Your task to perform on an android device: toggle pop-ups in chrome Image 0: 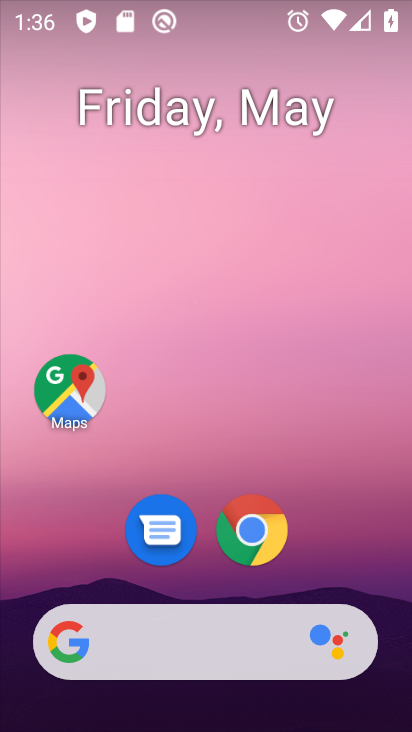
Step 0: click (245, 530)
Your task to perform on an android device: toggle pop-ups in chrome Image 1: 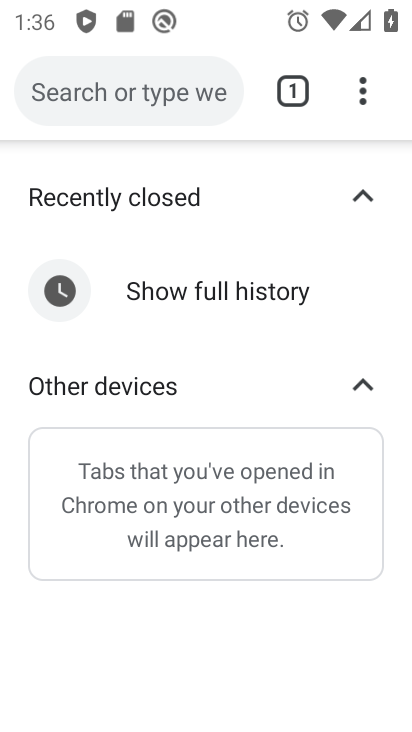
Step 1: click (345, 99)
Your task to perform on an android device: toggle pop-ups in chrome Image 2: 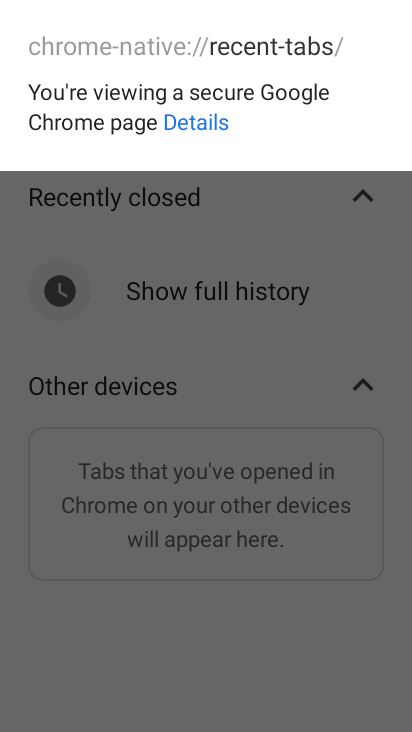
Step 2: click (343, 345)
Your task to perform on an android device: toggle pop-ups in chrome Image 3: 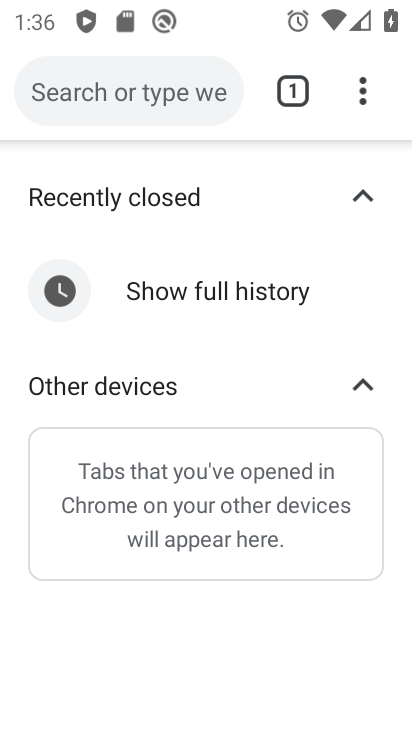
Step 3: click (382, 103)
Your task to perform on an android device: toggle pop-ups in chrome Image 4: 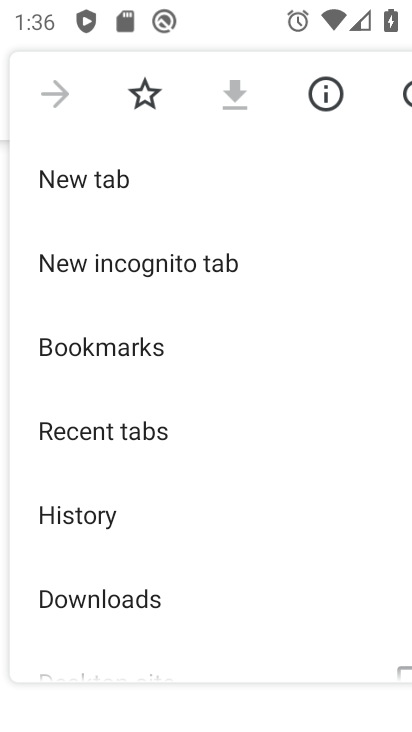
Step 4: drag from (190, 607) to (189, 112)
Your task to perform on an android device: toggle pop-ups in chrome Image 5: 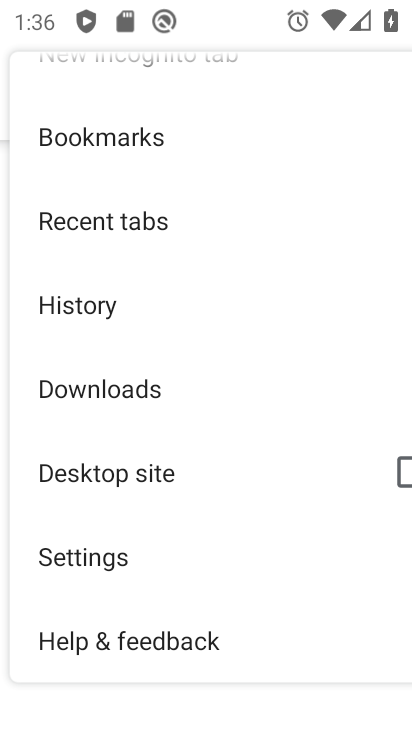
Step 5: click (125, 568)
Your task to perform on an android device: toggle pop-ups in chrome Image 6: 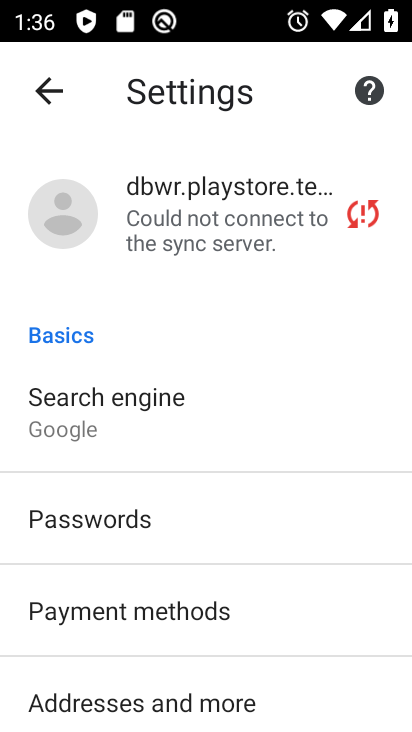
Step 6: drag from (287, 669) to (253, 295)
Your task to perform on an android device: toggle pop-ups in chrome Image 7: 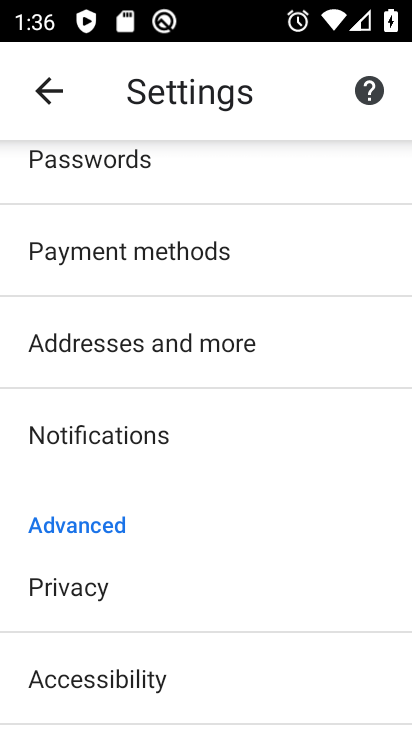
Step 7: drag from (185, 681) to (192, 302)
Your task to perform on an android device: toggle pop-ups in chrome Image 8: 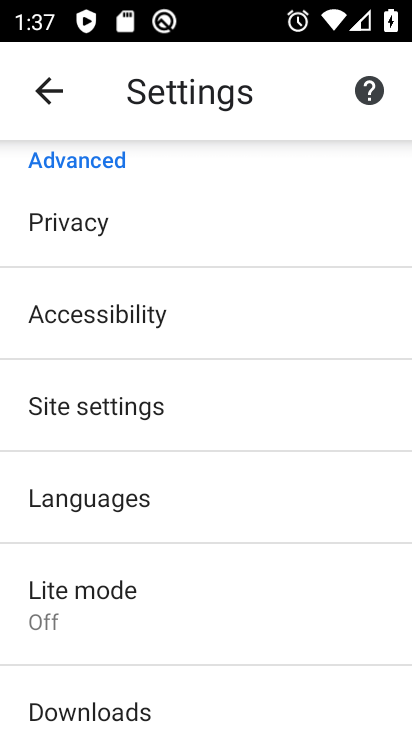
Step 8: click (170, 413)
Your task to perform on an android device: toggle pop-ups in chrome Image 9: 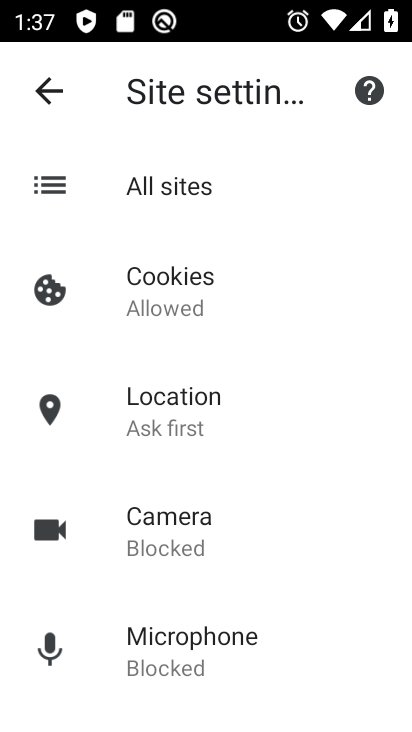
Step 9: drag from (189, 664) to (214, 241)
Your task to perform on an android device: toggle pop-ups in chrome Image 10: 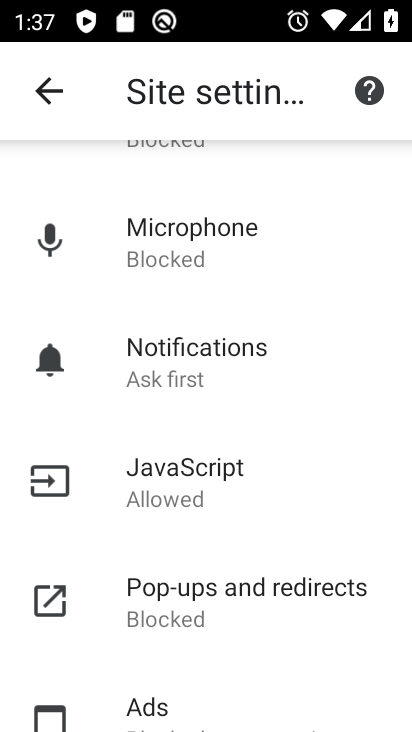
Step 10: click (191, 591)
Your task to perform on an android device: toggle pop-ups in chrome Image 11: 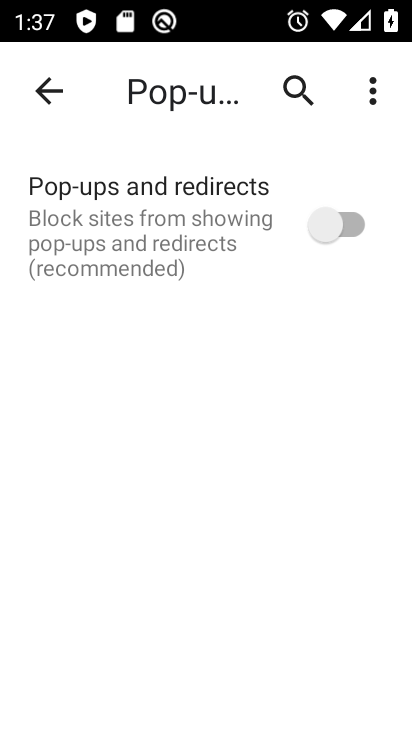
Step 11: click (366, 216)
Your task to perform on an android device: toggle pop-ups in chrome Image 12: 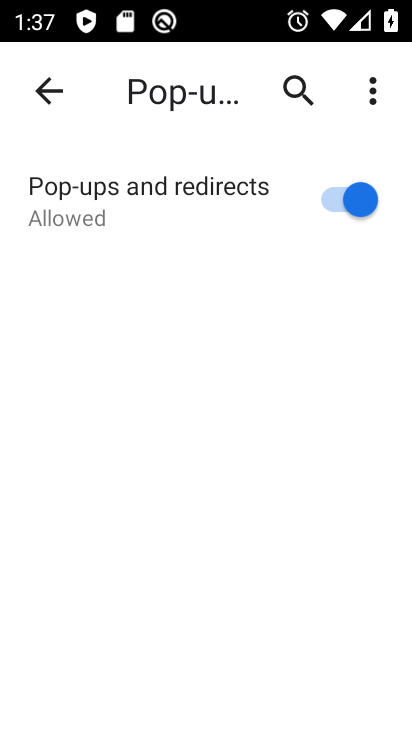
Step 12: task complete